Your task to perform on an android device: clear history in the chrome app Image 0: 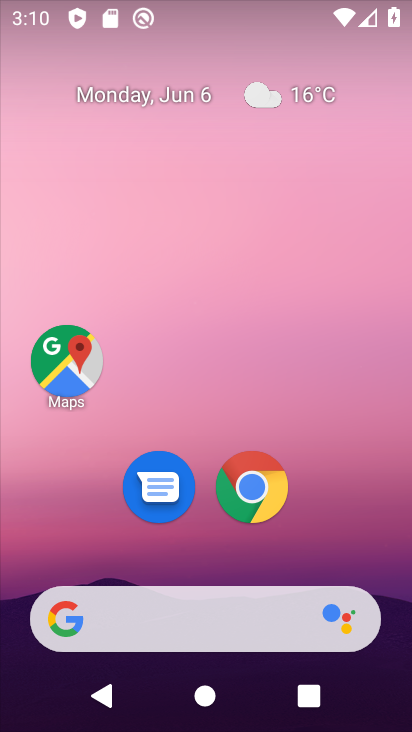
Step 0: drag from (63, 614) to (171, 111)
Your task to perform on an android device: clear history in the chrome app Image 1: 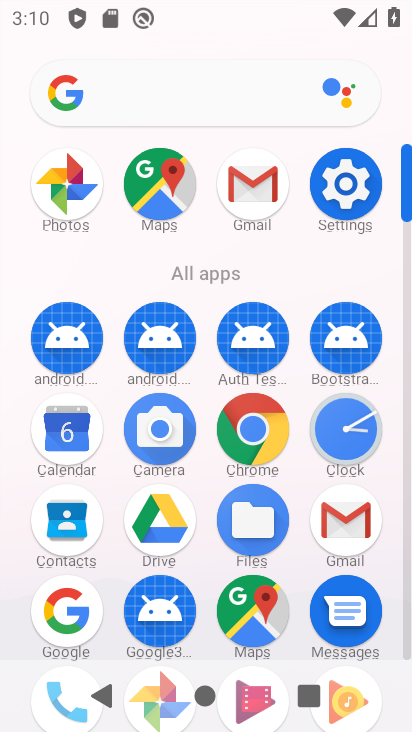
Step 1: click (252, 431)
Your task to perform on an android device: clear history in the chrome app Image 2: 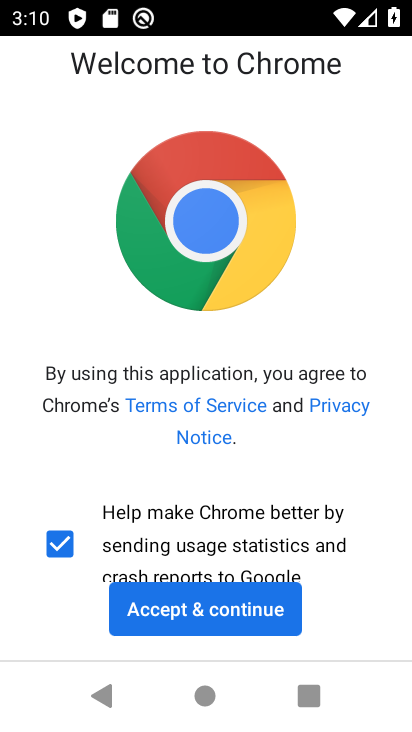
Step 2: click (260, 628)
Your task to perform on an android device: clear history in the chrome app Image 3: 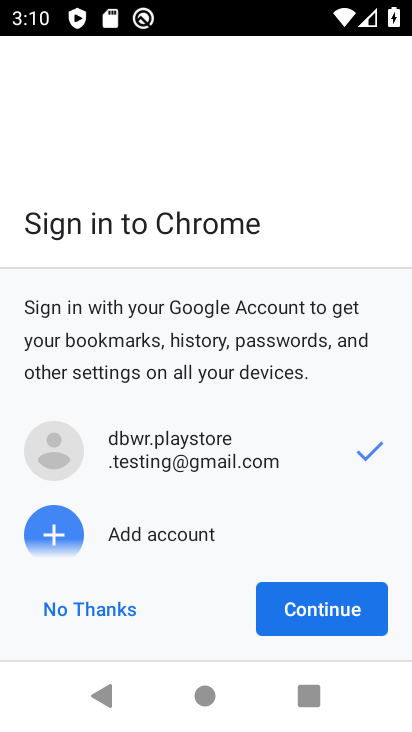
Step 3: click (351, 615)
Your task to perform on an android device: clear history in the chrome app Image 4: 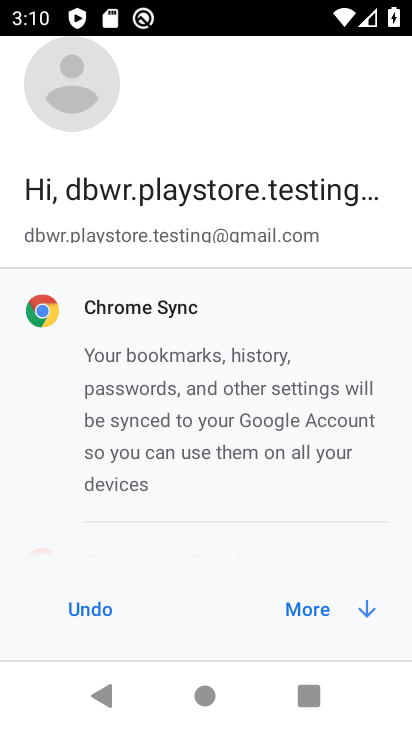
Step 4: click (320, 615)
Your task to perform on an android device: clear history in the chrome app Image 5: 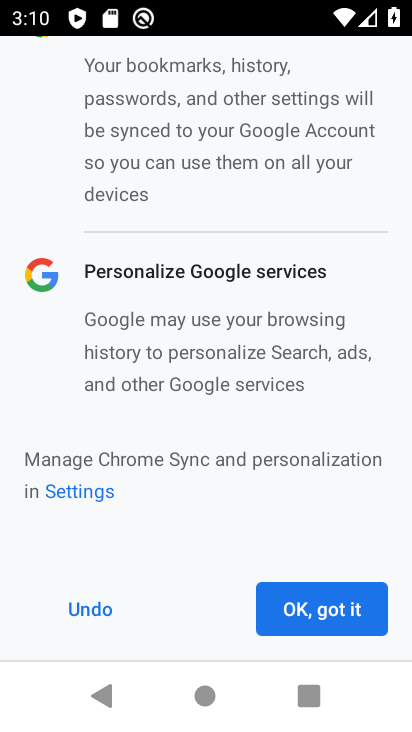
Step 5: click (320, 615)
Your task to perform on an android device: clear history in the chrome app Image 6: 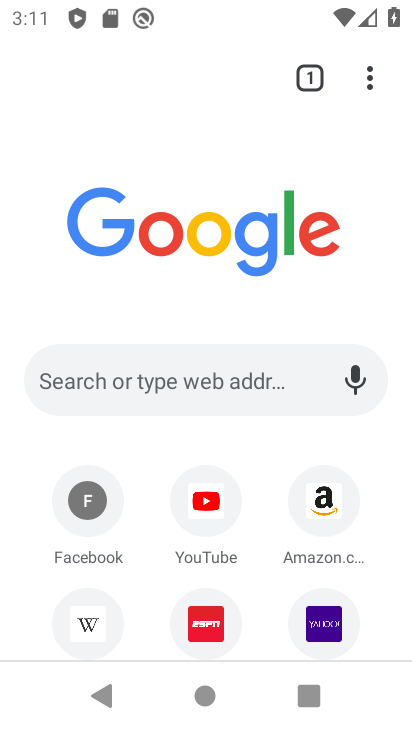
Step 6: task complete